Your task to perform on an android device: remove spam from my inbox in the gmail app Image 0: 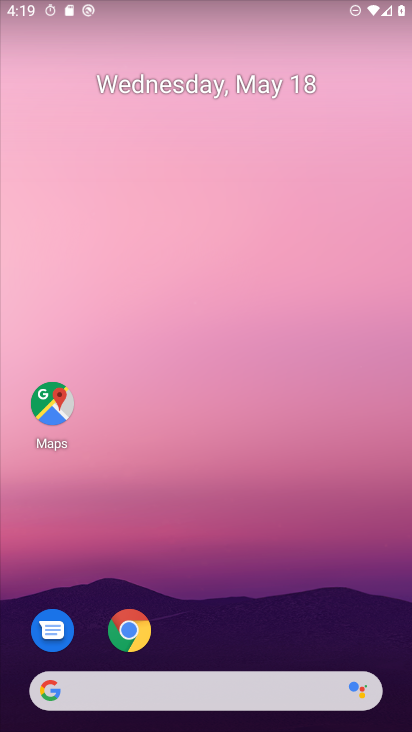
Step 0: press home button
Your task to perform on an android device: remove spam from my inbox in the gmail app Image 1: 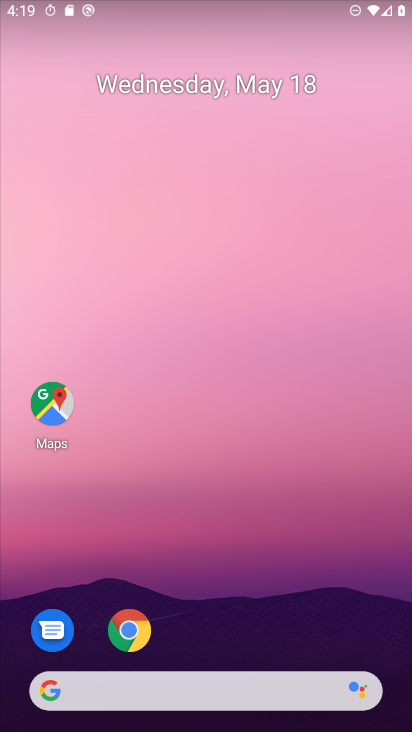
Step 1: drag from (219, 492) to (268, 27)
Your task to perform on an android device: remove spam from my inbox in the gmail app Image 2: 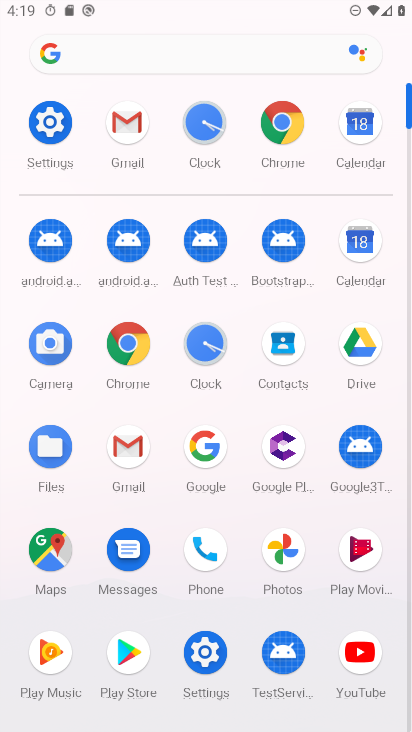
Step 2: click (125, 119)
Your task to perform on an android device: remove spam from my inbox in the gmail app Image 3: 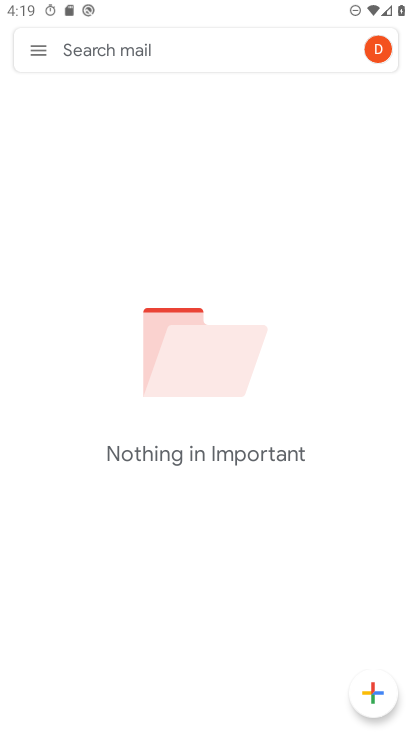
Step 3: click (40, 46)
Your task to perform on an android device: remove spam from my inbox in the gmail app Image 4: 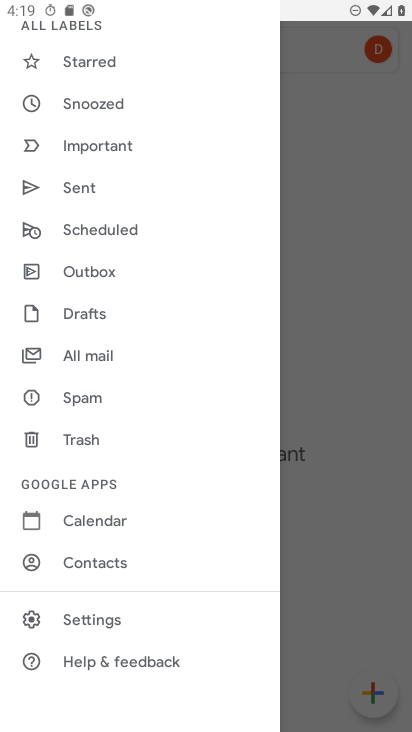
Step 4: click (79, 395)
Your task to perform on an android device: remove spam from my inbox in the gmail app Image 5: 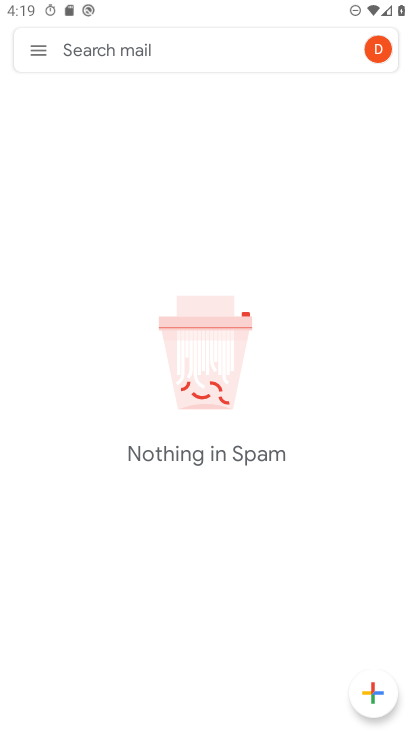
Step 5: task complete